Your task to perform on an android device: see creations saved in the google photos Image 0: 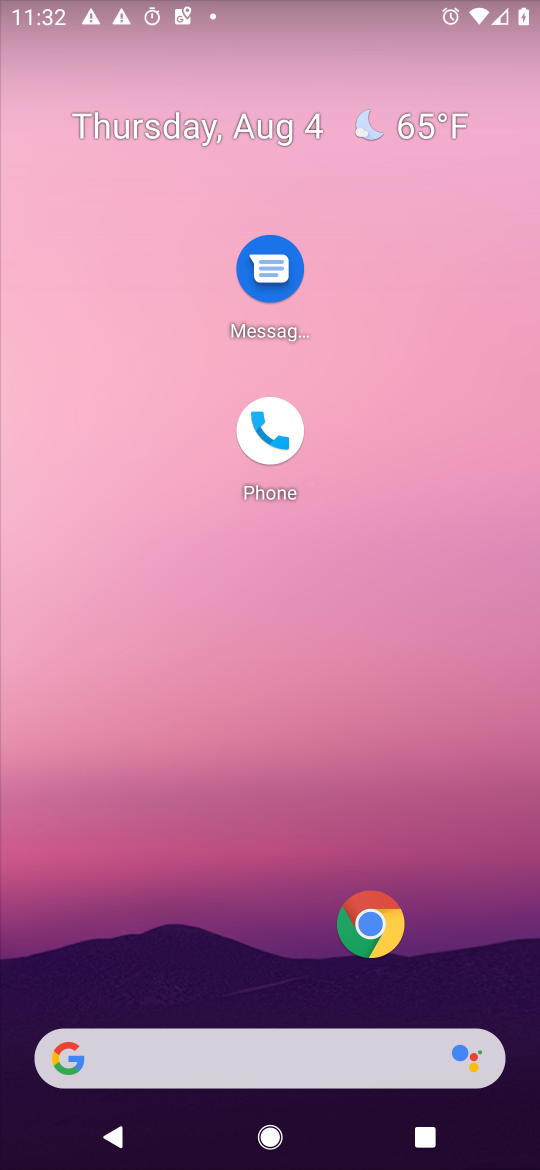
Step 0: drag from (265, 929) to (301, 315)
Your task to perform on an android device: see creations saved in the google photos Image 1: 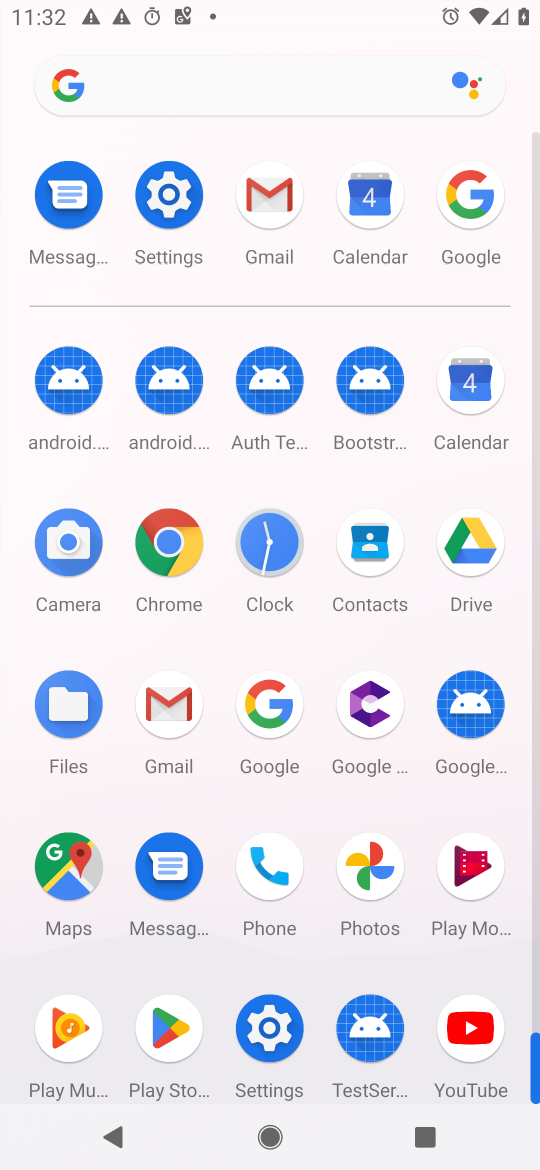
Step 1: click (360, 867)
Your task to perform on an android device: see creations saved in the google photos Image 2: 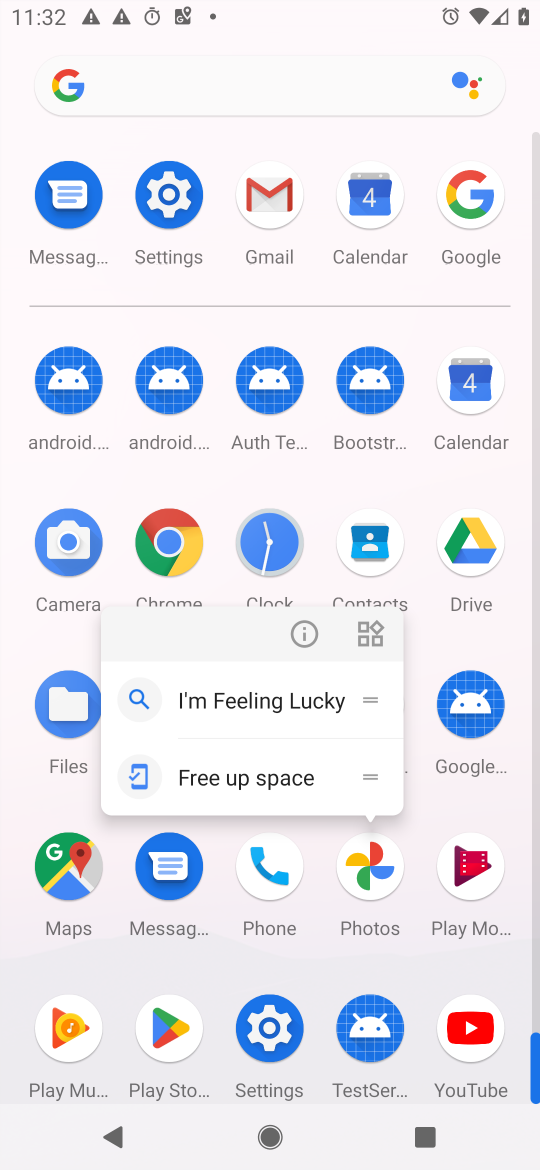
Step 2: click (290, 632)
Your task to perform on an android device: see creations saved in the google photos Image 3: 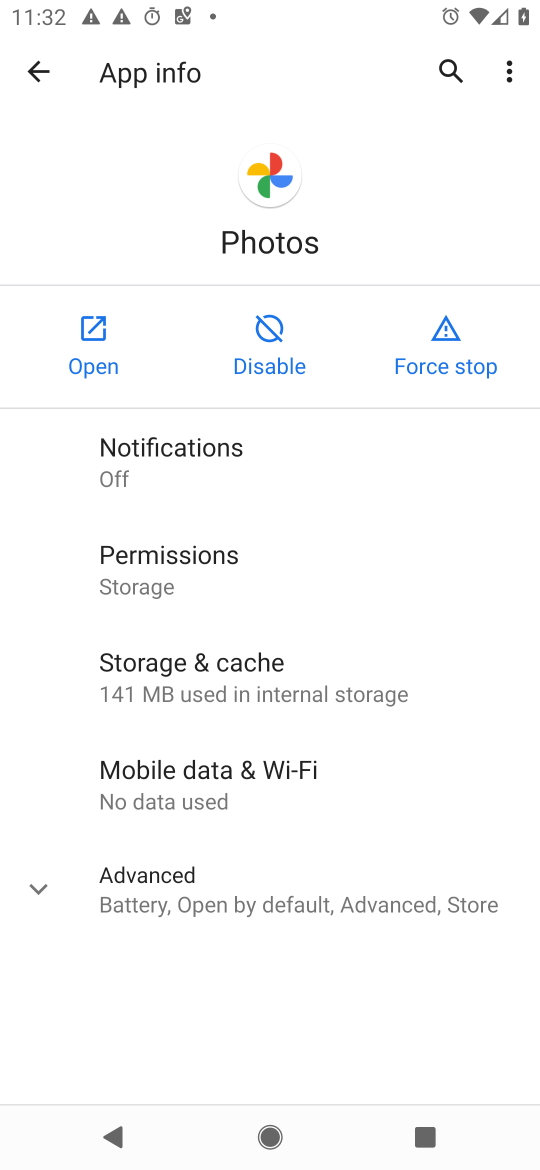
Step 3: click (83, 317)
Your task to perform on an android device: see creations saved in the google photos Image 4: 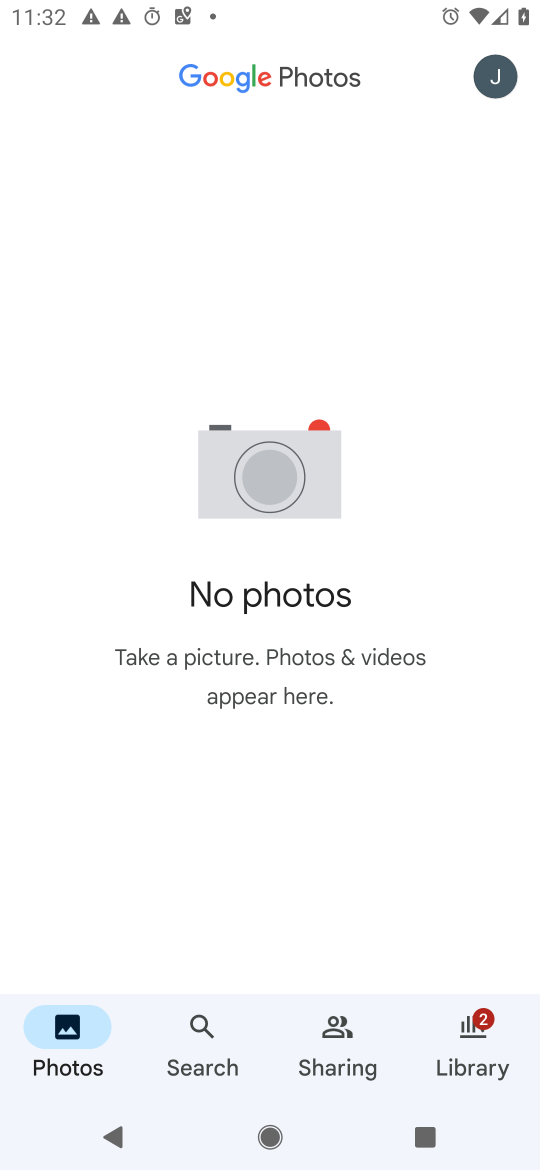
Step 4: click (188, 1040)
Your task to perform on an android device: see creations saved in the google photos Image 5: 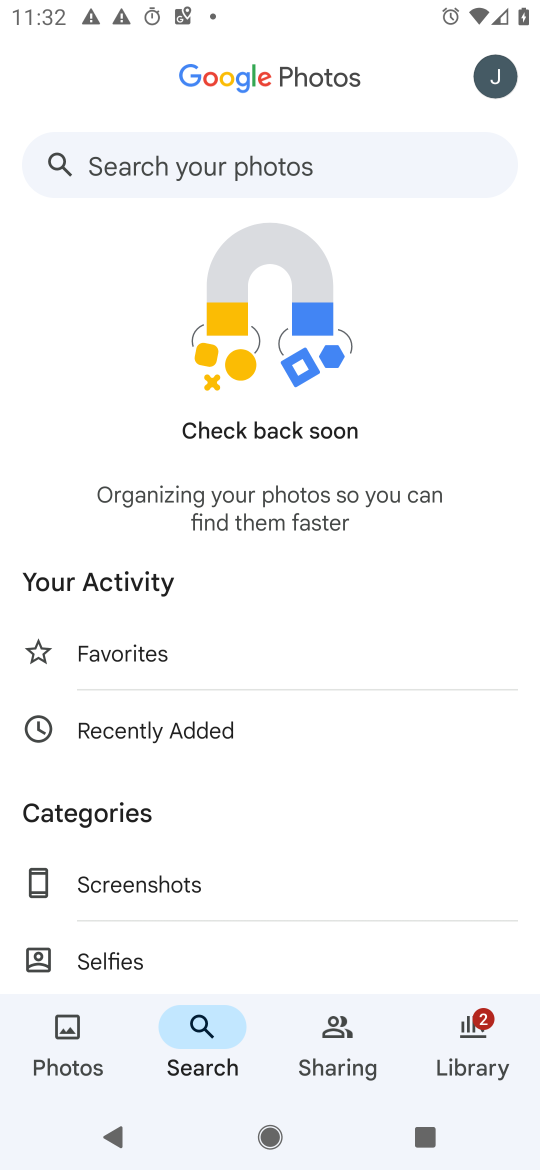
Step 5: drag from (224, 920) to (264, 397)
Your task to perform on an android device: see creations saved in the google photos Image 6: 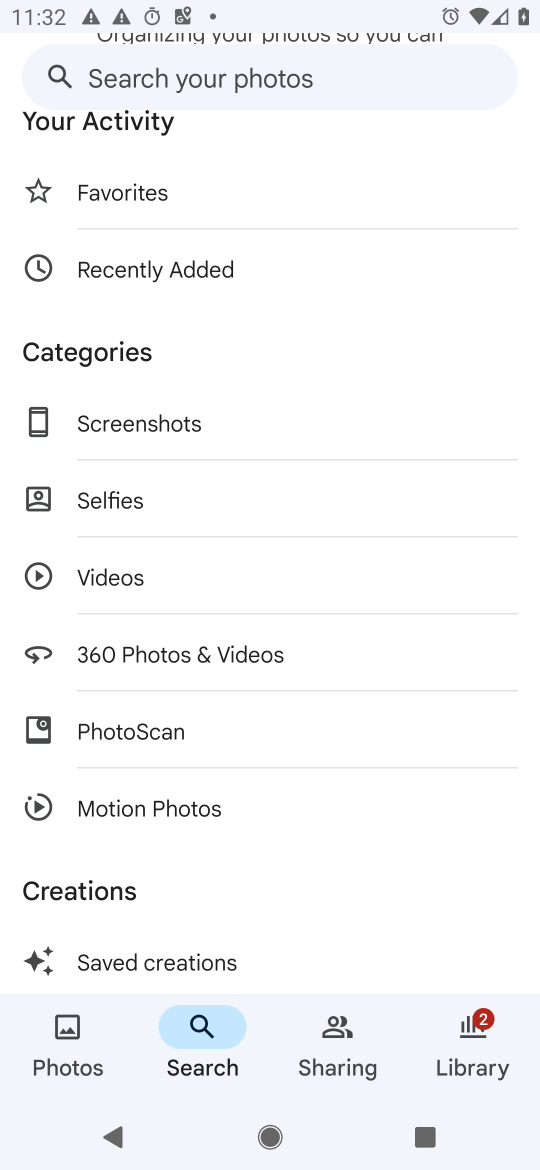
Step 6: click (100, 958)
Your task to perform on an android device: see creations saved in the google photos Image 7: 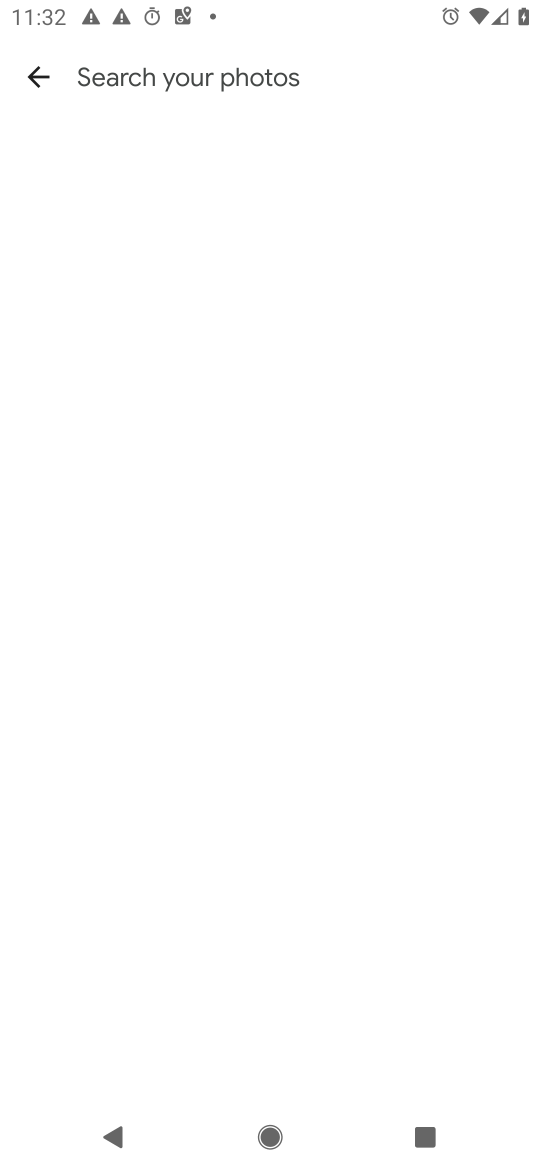
Step 7: task complete